Your task to perform on an android device: Open privacy settings Image 0: 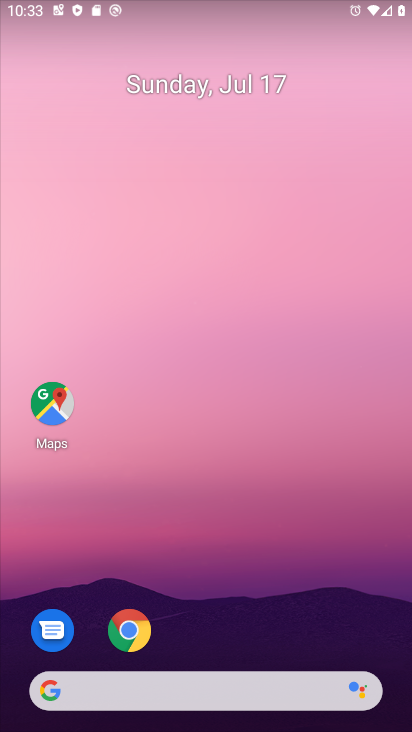
Step 0: drag from (369, 613) to (363, 65)
Your task to perform on an android device: Open privacy settings Image 1: 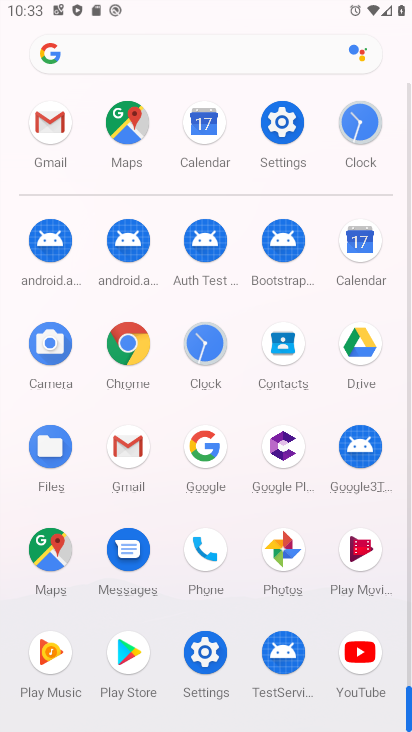
Step 1: click (279, 121)
Your task to perform on an android device: Open privacy settings Image 2: 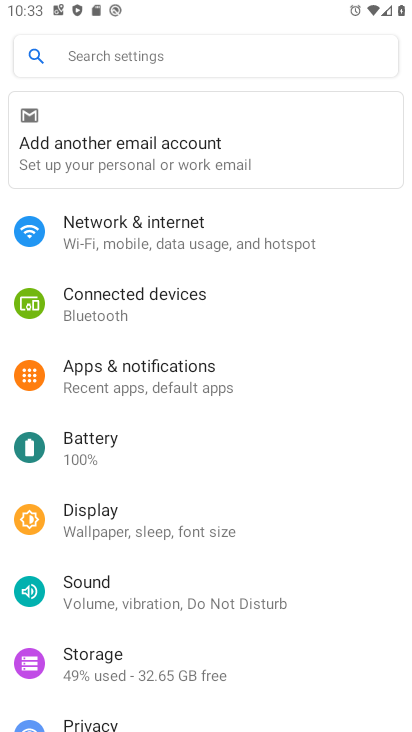
Step 2: drag from (359, 382) to (358, 285)
Your task to perform on an android device: Open privacy settings Image 3: 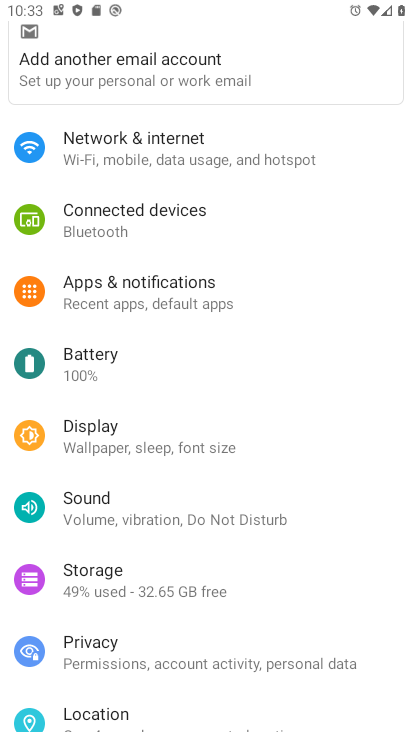
Step 3: drag from (350, 397) to (362, 284)
Your task to perform on an android device: Open privacy settings Image 4: 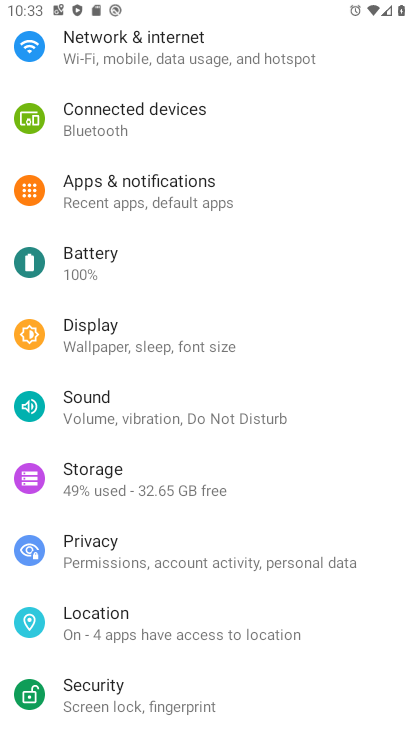
Step 4: drag from (349, 411) to (355, 267)
Your task to perform on an android device: Open privacy settings Image 5: 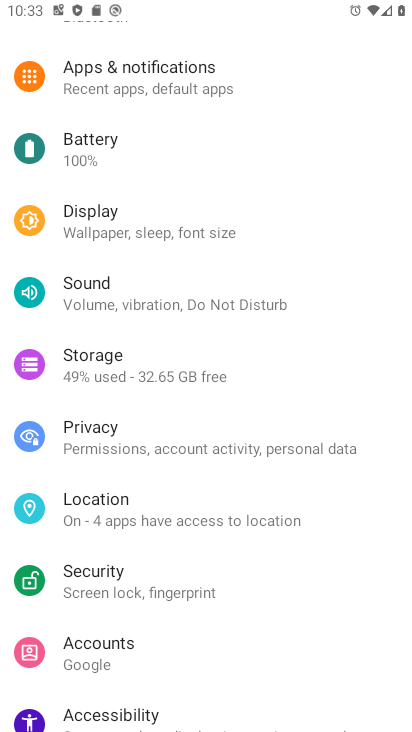
Step 5: drag from (337, 494) to (339, 405)
Your task to perform on an android device: Open privacy settings Image 6: 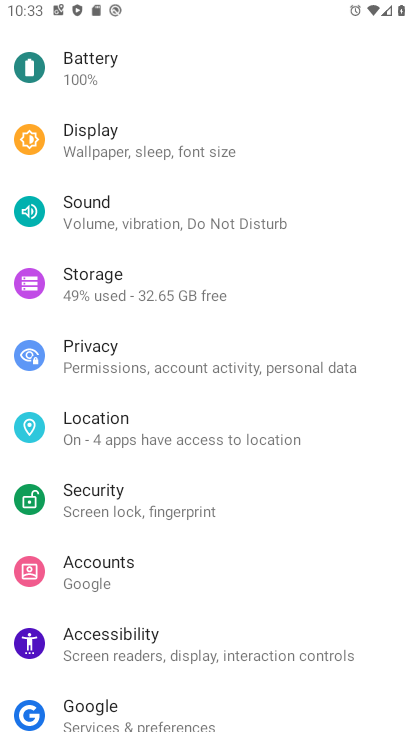
Step 6: drag from (334, 497) to (350, 386)
Your task to perform on an android device: Open privacy settings Image 7: 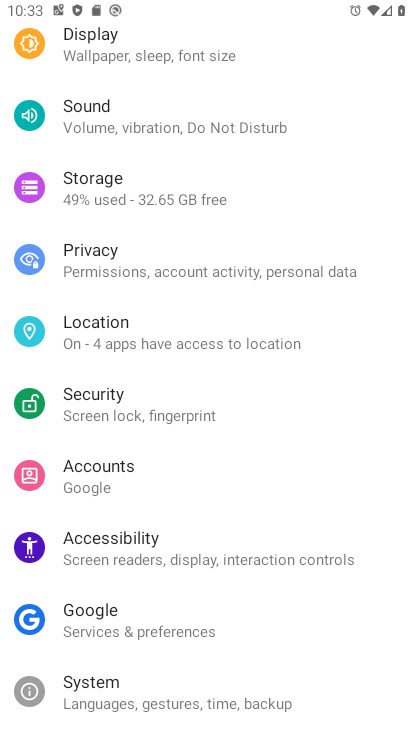
Step 7: drag from (345, 484) to (350, 382)
Your task to perform on an android device: Open privacy settings Image 8: 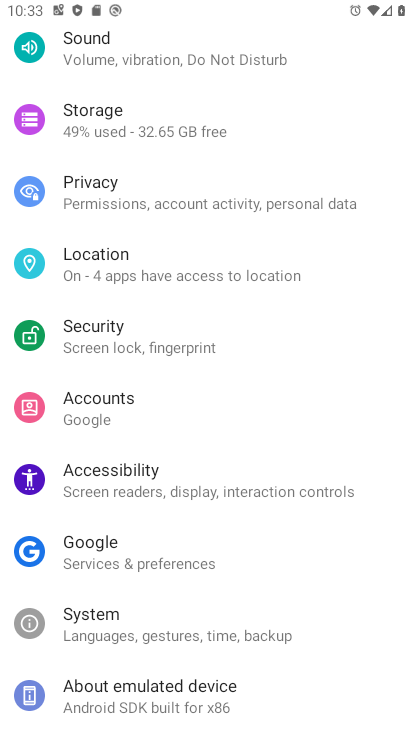
Step 8: drag from (347, 530) to (346, 414)
Your task to perform on an android device: Open privacy settings Image 9: 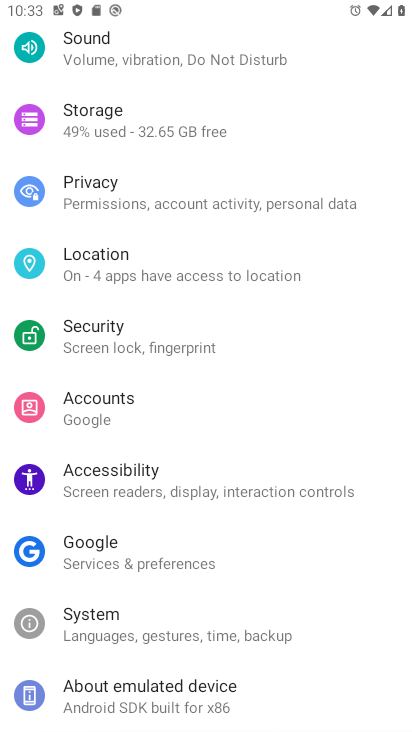
Step 9: drag from (350, 295) to (352, 432)
Your task to perform on an android device: Open privacy settings Image 10: 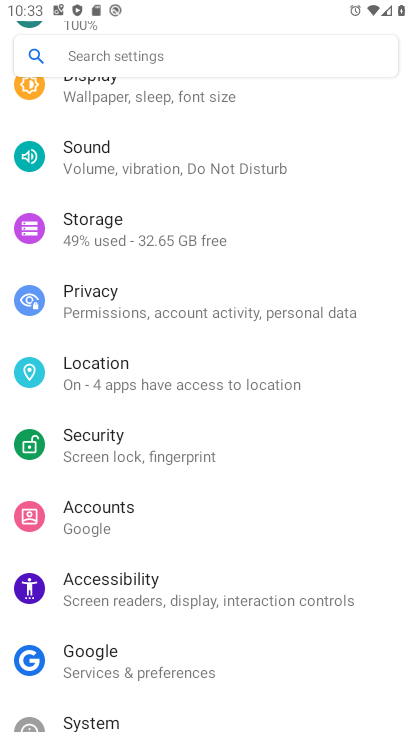
Step 10: drag from (326, 243) to (331, 400)
Your task to perform on an android device: Open privacy settings Image 11: 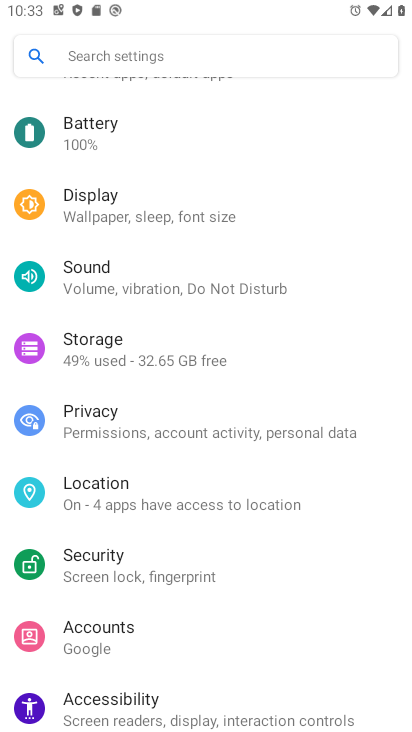
Step 11: drag from (331, 205) to (331, 372)
Your task to perform on an android device: Open privacy settings Image 12: 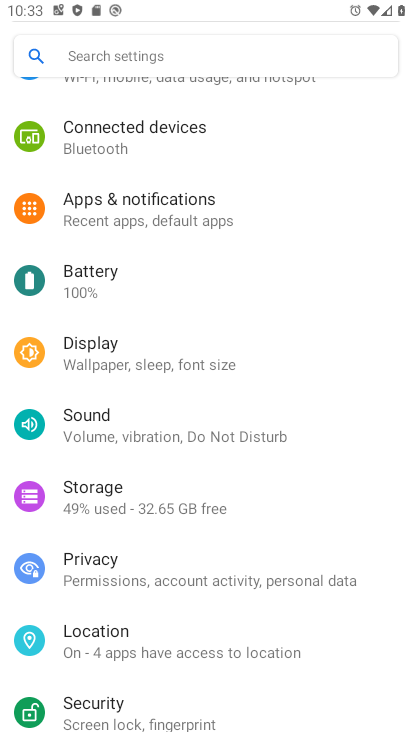
Step 12: drag from (321, 247) to (321, 372)
Your task to perform on an android device: Open privacy settings Image 13: 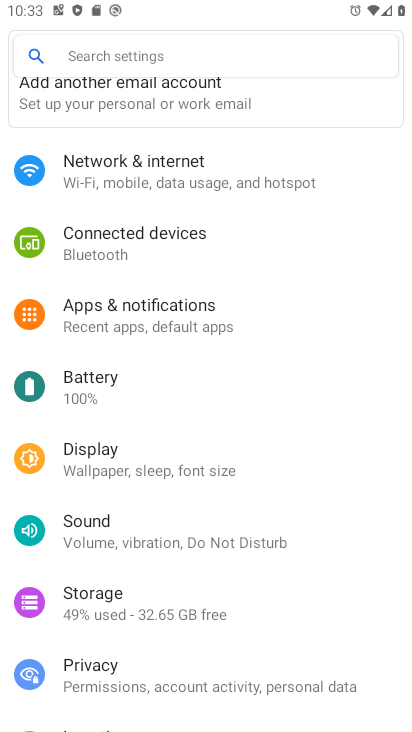
Step 13: click (217, 661)
Your task to perform on an android device: Open privacy settings Image 14: 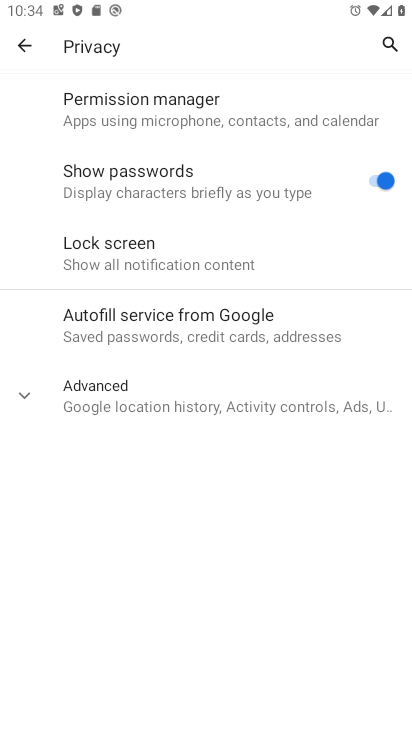
Step 14: click (193, 387)
Your task to perform on an android device: Open privacy settings Image 15: 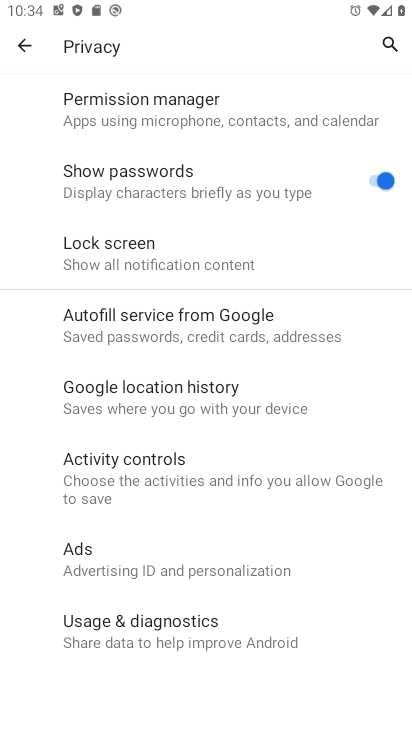
Step 15: task complete